Your task to perform on an android device: empty trash in the gmail app Image 0: 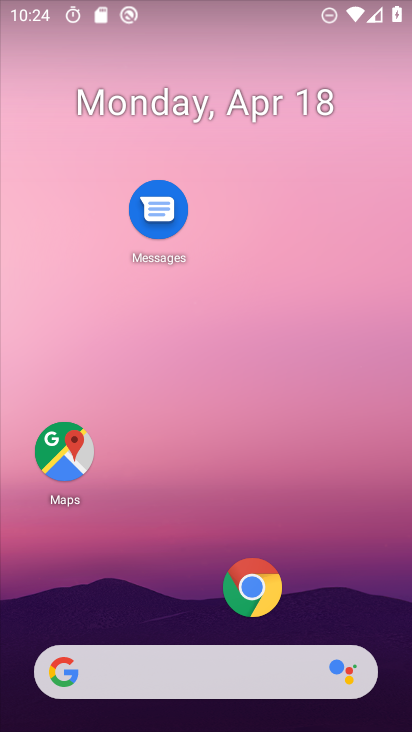
Step 0: drag from (169, 609) to (391, 5)
Your task to perform on an android device: empty trash in the gmail app Image 1: 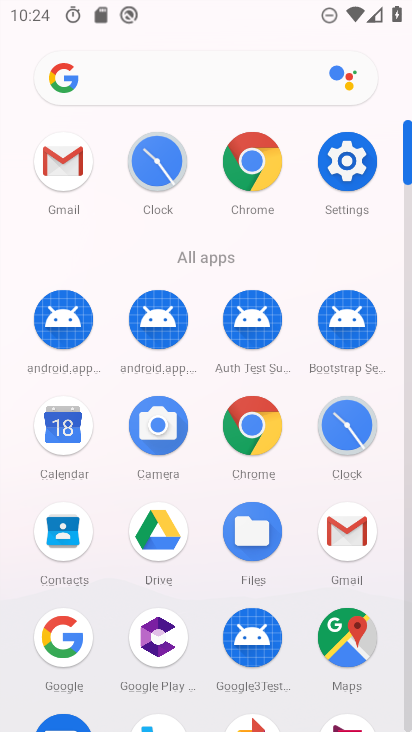
Step 1: click (341, 537)
Your task to perform on an android device: empty trash in the gmail app Image 2: 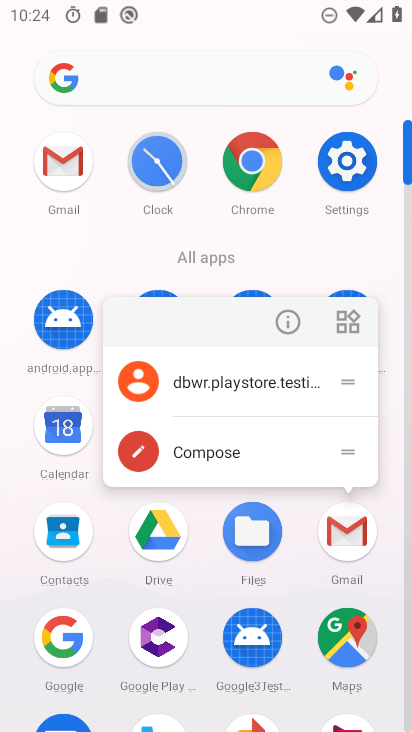
Step 2: click (352, 527)
Your task to perform on an android device: empty trash in the gmail app Image 3: 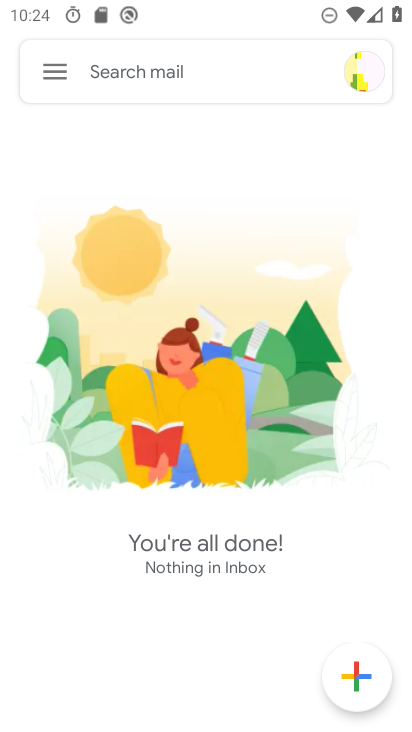
Step 3: click (44, 66)
Your task to perform on an android device: empty trash in the gmail app Image 4: 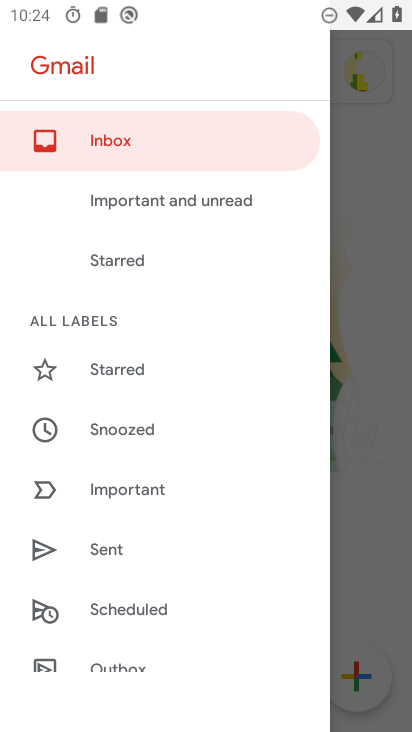
Step 4: drag from (113, 577) to (229, 124)
Your task to perform on an android device: empty trash in the gmail app Image 5: 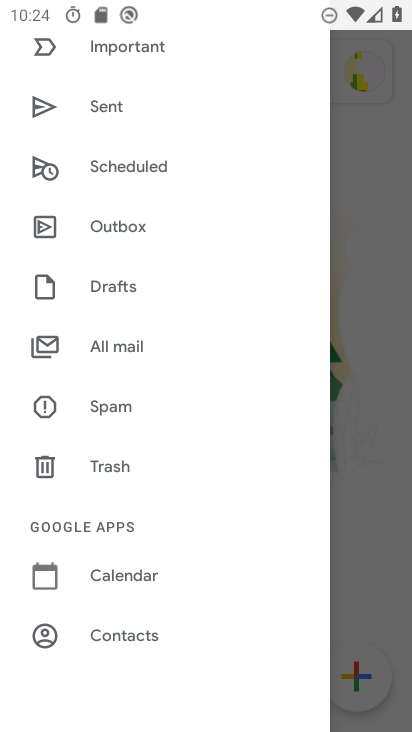
Step 5: click (110, 470)
Your task to perform on an android device: empty trash in the gmail app Image 6: 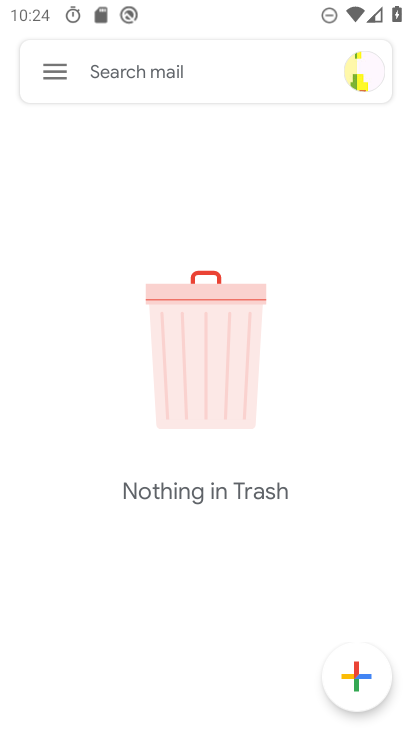
Step 6: task complete